Your task to perform on an android device: open app "Pandora - Music & Podcasts" (install if not already installed) Image 0: 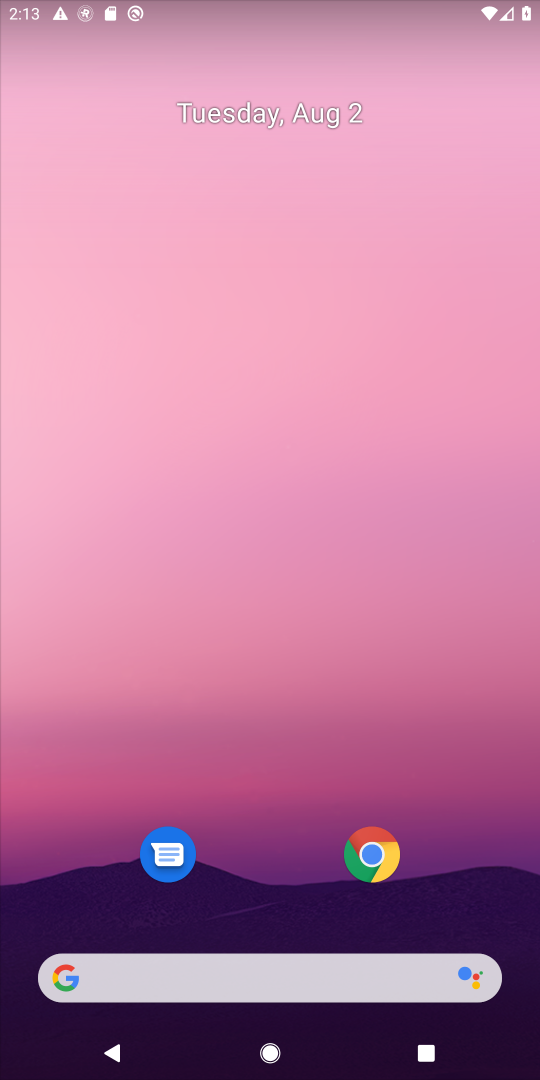
Step 0: drag from (302, 874) to (299, 95)
Your task to perform on an android device: open app "Pandora - Music & Podcasts" (install if not already installed) Image 1: 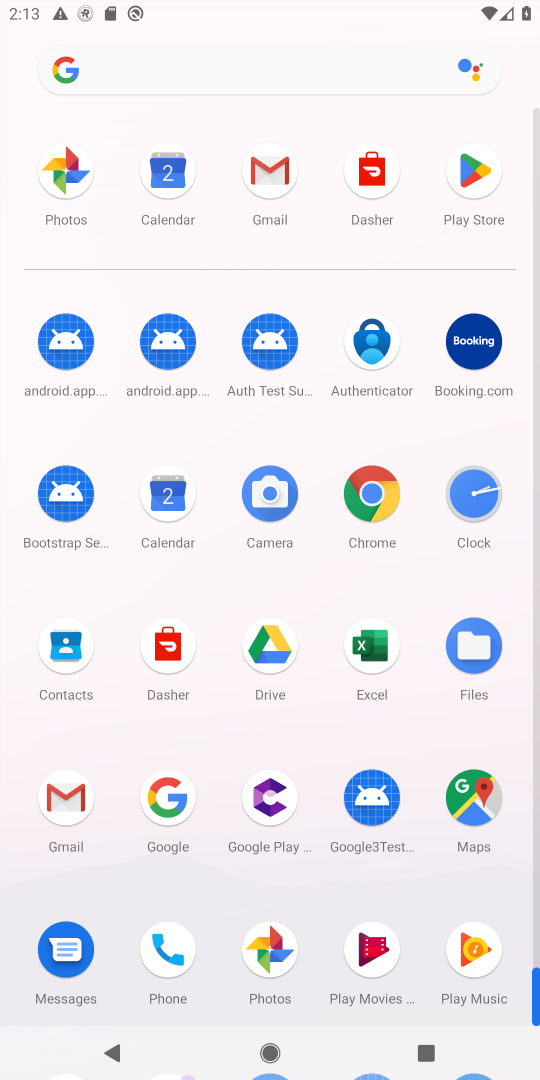
Step 1: click (479, 174)
Your task to perform on an android device: open app "Pandora - Music & Podcasts" (install if not already installed) Image 2: 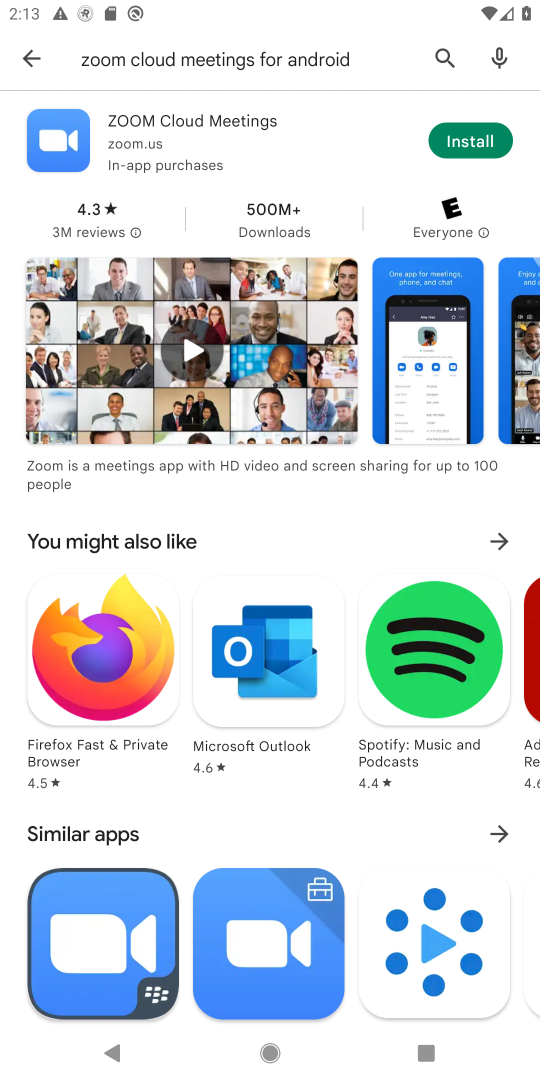
Step 2: click (442, 58)
Your task to perform on an android device: open app "Pandora - Music & Podcasts" (install if not already installed) Image 3: 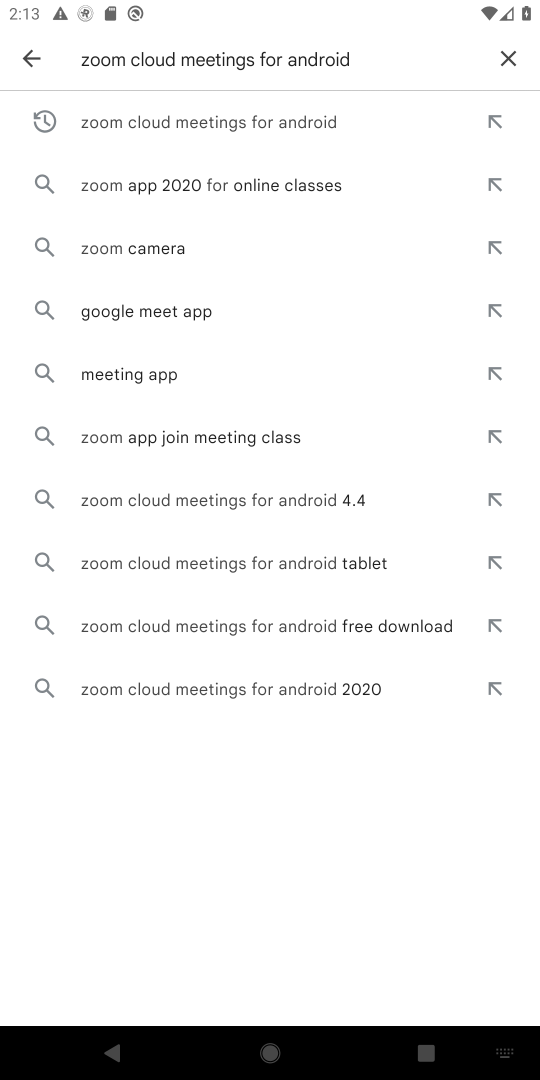
Step 3: click (510, 60)
Your task to perform on an android device: open app "Pandora - Music & Podcasts" (install if not already installed) Image 4: 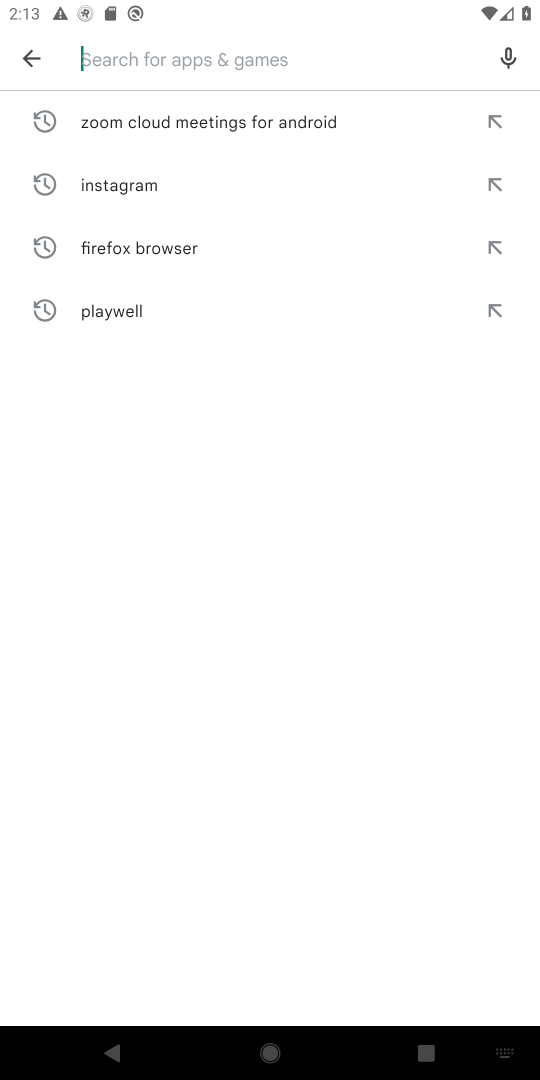
Step 4: type "Pandora - Music & Podcasts"
Your task to perform on an android device: open app "Pandora - Music & Podcasts" (install if not already installed) Image 5: 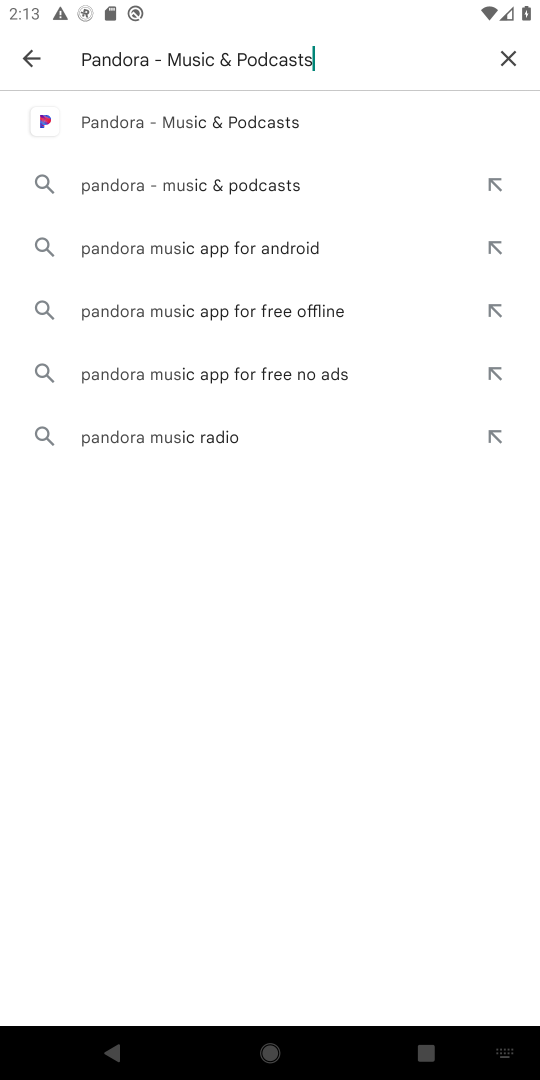
Step 5: type ""
Your task to perform on an android device: open app "Pandora - Music & Podcasts" (install if not already installed) Image 6: 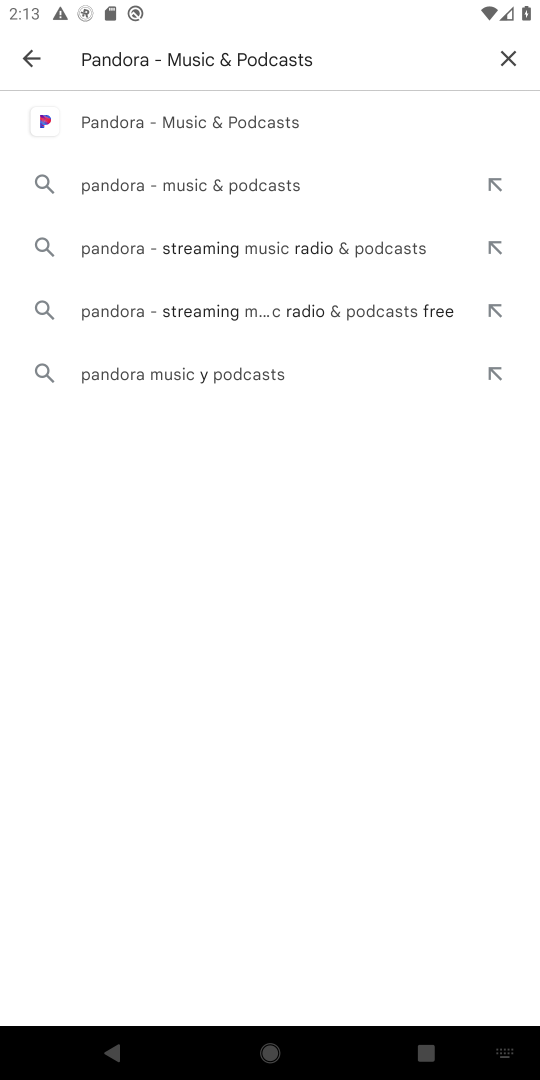
Step 6: click (196, 117)
Your task to perform on an android device: open app "Pandora - Music & Podcasts" (install if not already installed) Image 7: 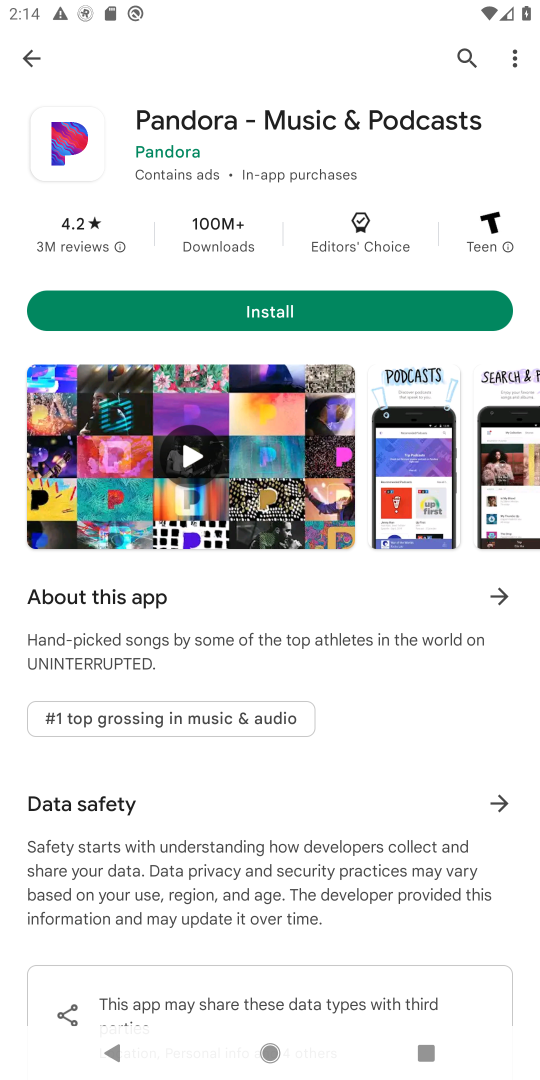
Step 7: click (287, 301)
Your task to perform on an android device: open app "Pandora - Music & Podcasts" (install if not already installed) Image 8: 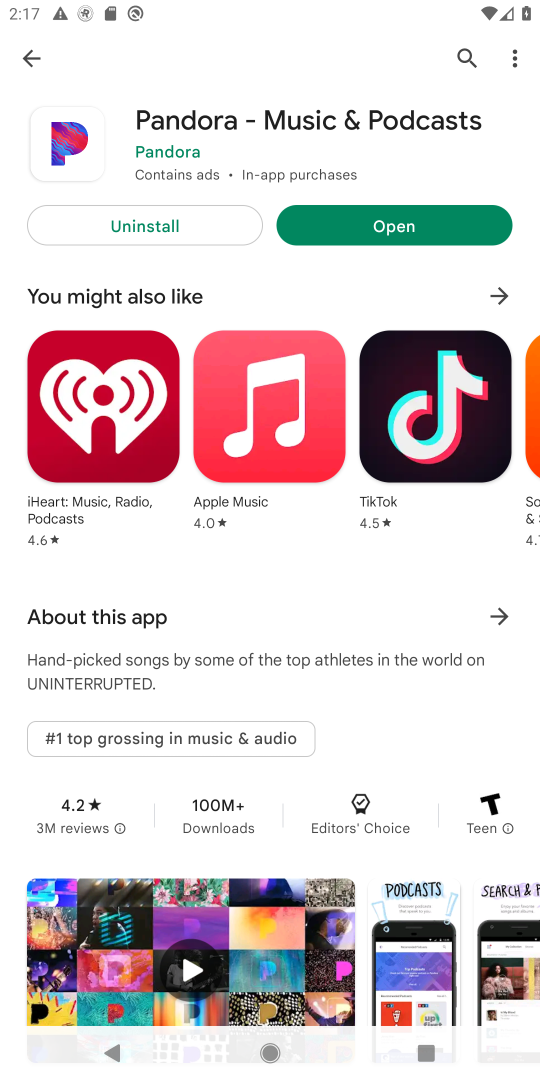
Step 8: click (399, 217)
Your task to perform on an android device: open app "Pandora - Music & Podcasts" (install if not already installed) Image 9: 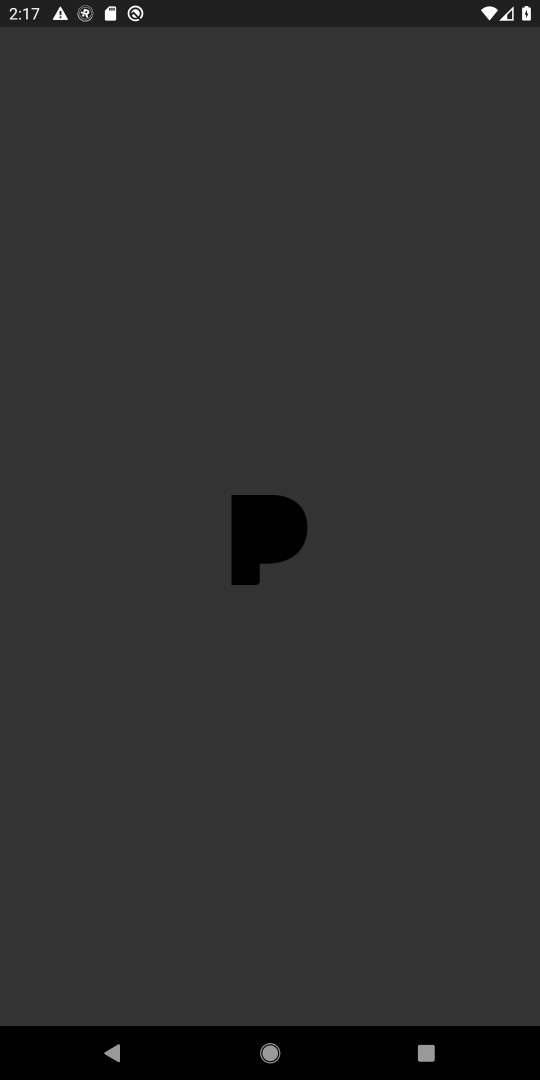
Step 9: task complete